Your task to perform on an android device: move a message to another label in the gmail app Image 0: 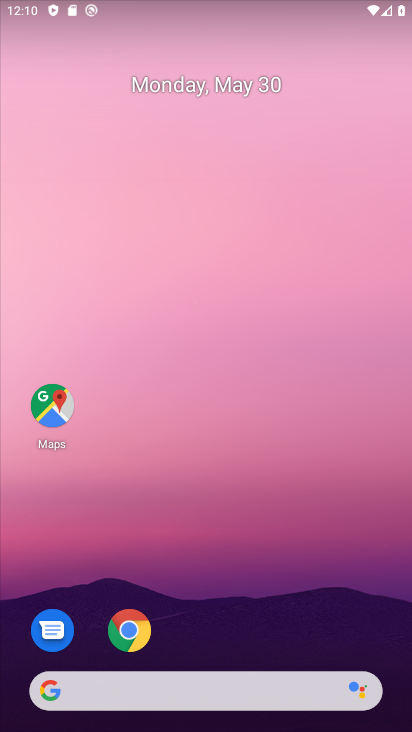
Step 0: press home button
Your task to perform on an android device: move a message to another label in the gmail app Image 1: 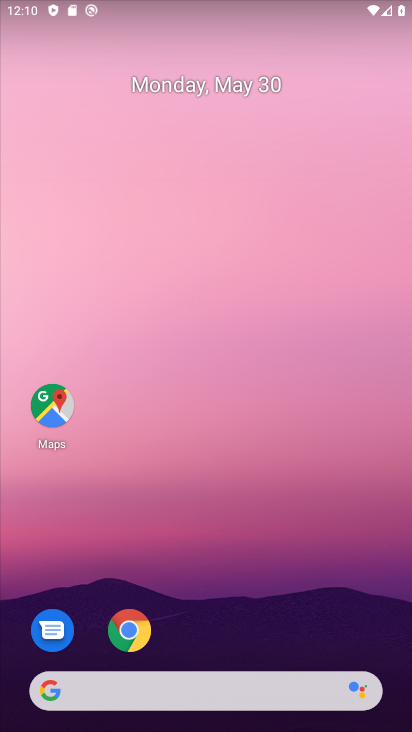
Step 1: drag from (132, 694) to (306, 101)
Your task to perform on an android device: move a message to another label in the gmail app Image 2: 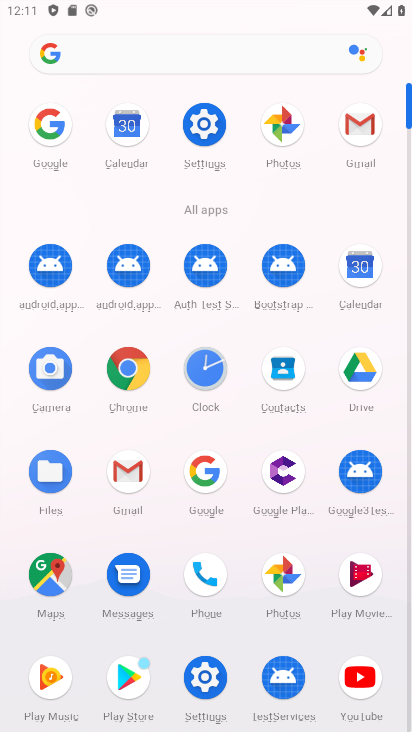
Step 2: click (353, 125)
Your task to perform on an android device: move a message to another label in the gmail app Image 3: 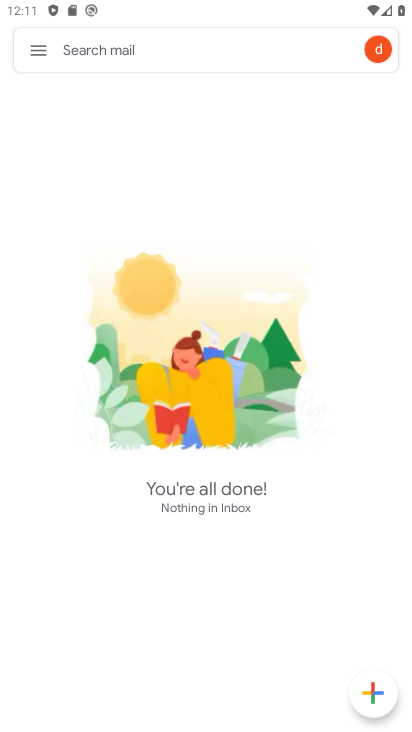
Step 3: task complete